Your task to perform on an android device: open chrome privacy settings Image 0: 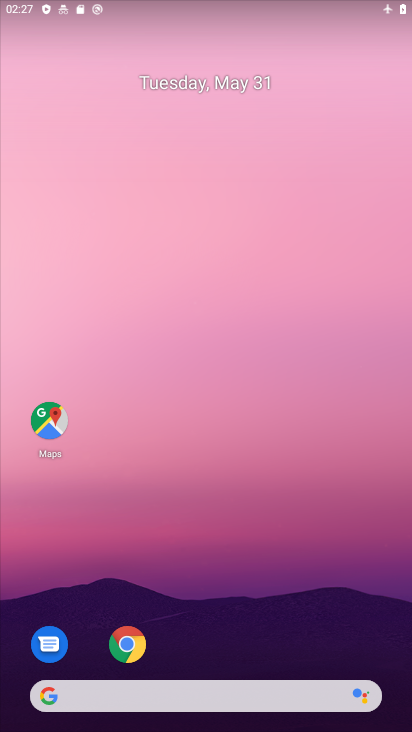
Step 0: click (124, 641)
Your task to perform on an android device: open chrome privacy settings Image 1: 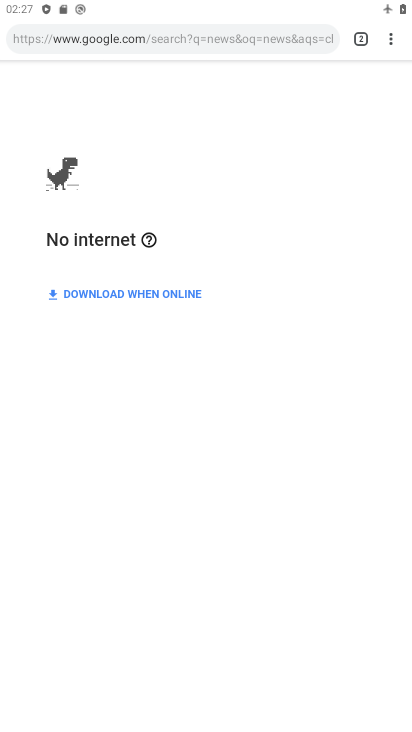
Step 1: drag from (393, 29) to (254, 430)
Your task to perform on an android device: open chrome privacy settings Image 2: 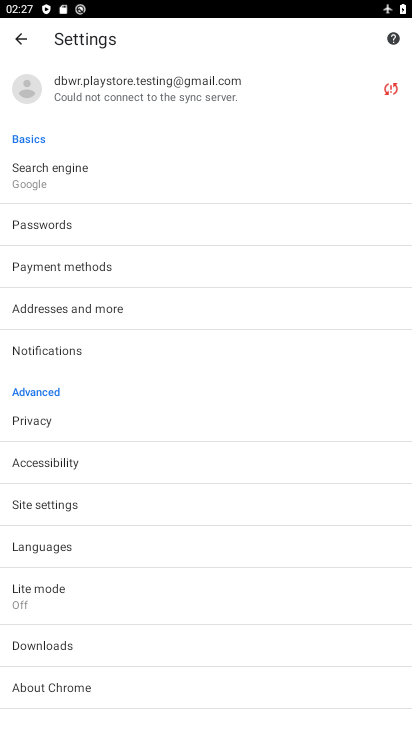
Step 2: click (46, 427)
Your task to perform on an android device: open chrome privacy settings Image 3: 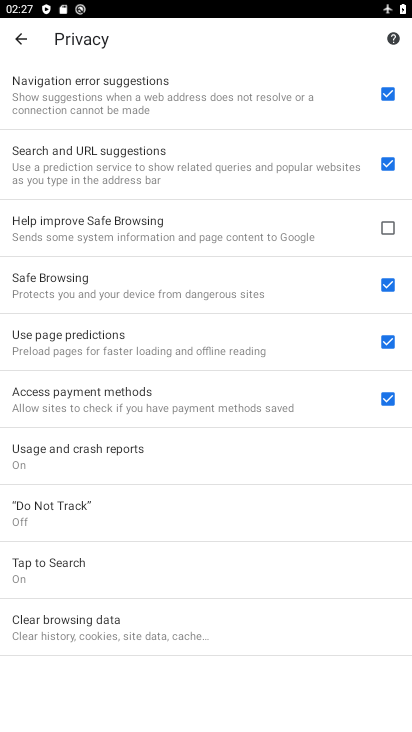
Step 3: task complete